Your task to perform on an android device: Open network settings Image 0: 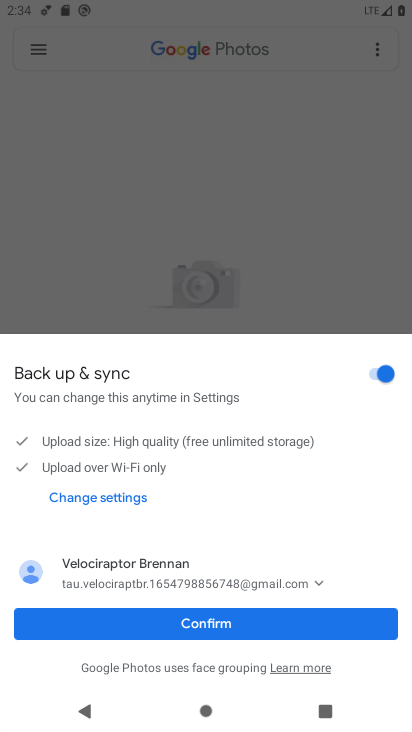
Step 0: press home button
Your task to perform on an android device: Open network settings Image 1: 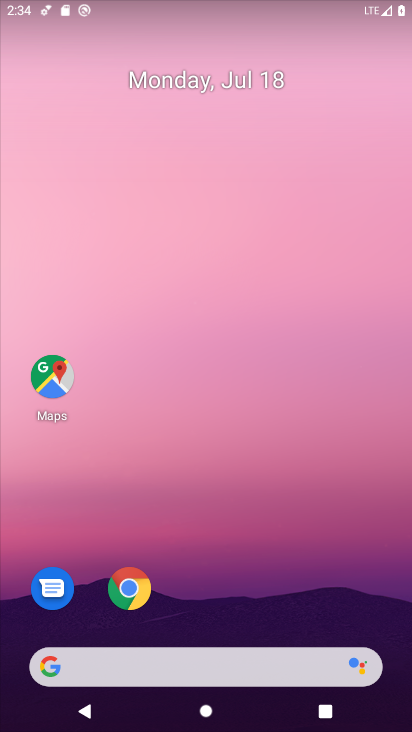
Step 1: drag from (308, 626) to (284, 260)
Your task to perform on an android device: Open network settings Image 2: 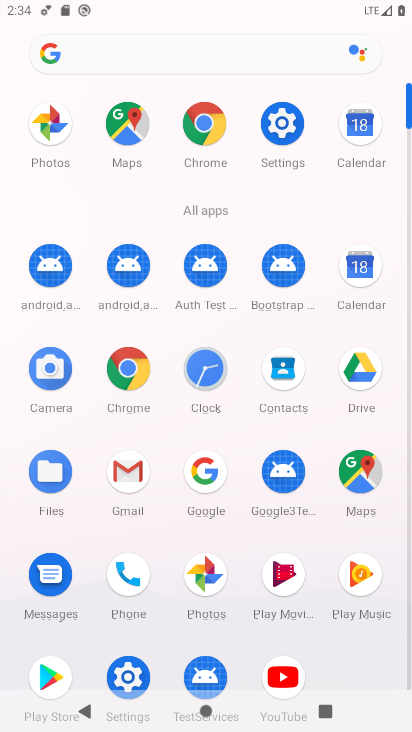
Step 2: click (289, 120)
Your task to perform on an android device: Open network settings Image 3: 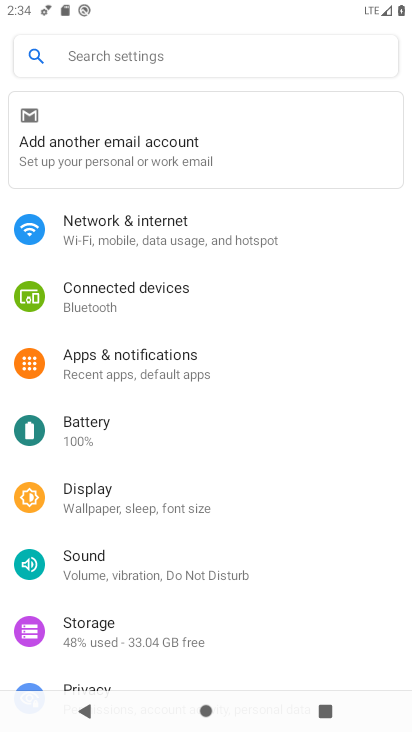
Step 3: click (226, 145)
Your task to perform on an android device: Open network settings Image 4: 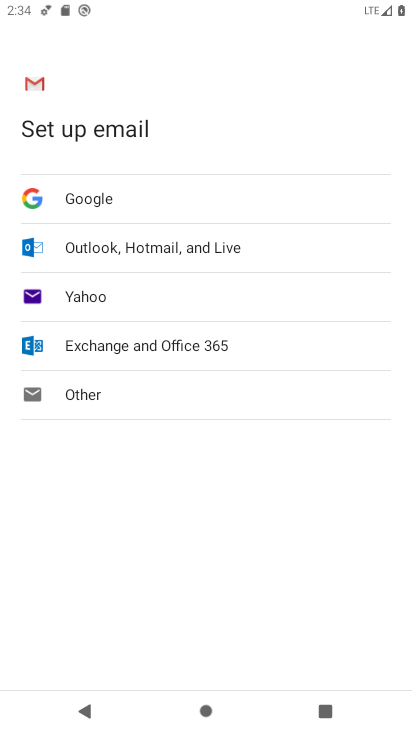
Step 4: drag from (79, 713) to (240, 16)
Your task to perform on an android device: Open network settings Image 5: 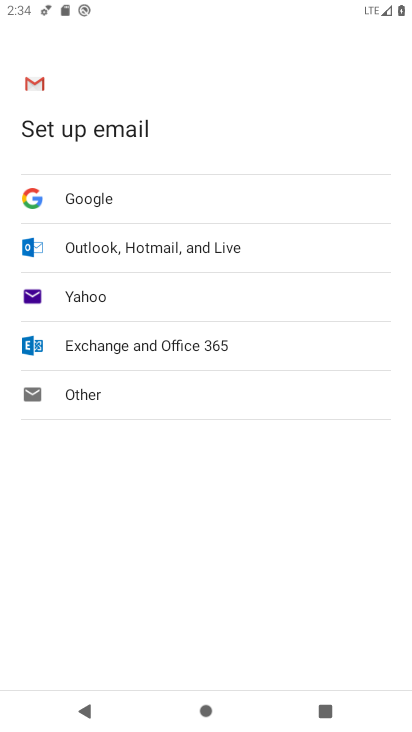
Step 5: press back button
Your task to perform on an android device: Open network settings Image 6: 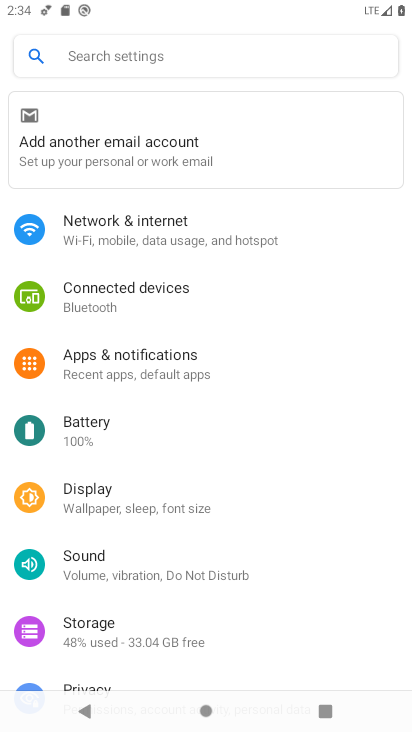
Step 6: click (339, 250)
Your task to perform on an android device: Open network settings Image 7: 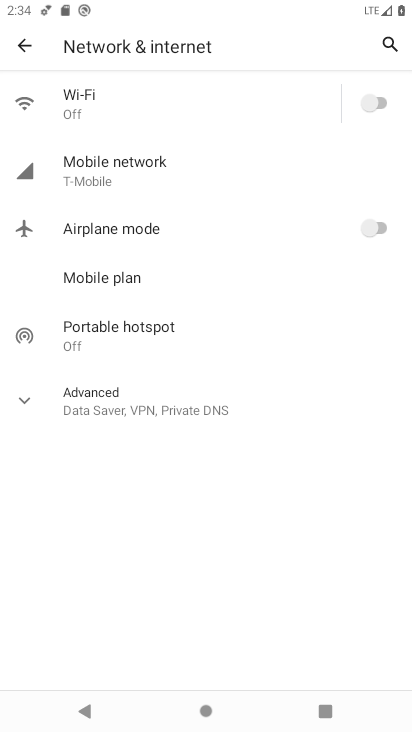
Step 7: task complete